Your task to perform on an android device: Check the weather Image 0: 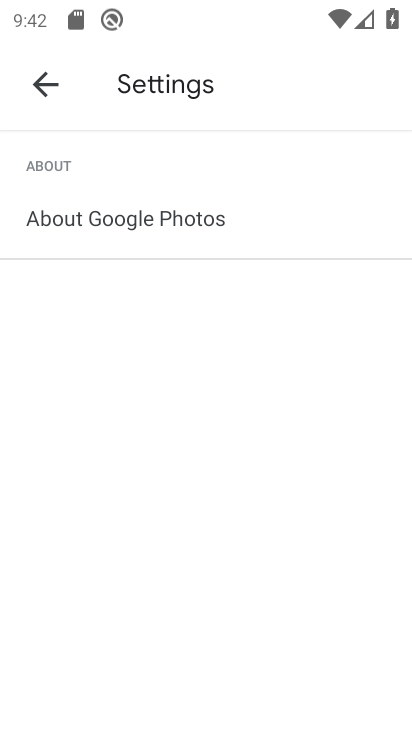
Step 0: press back button
Your task to perform on an android device: Check the weather Image 1: 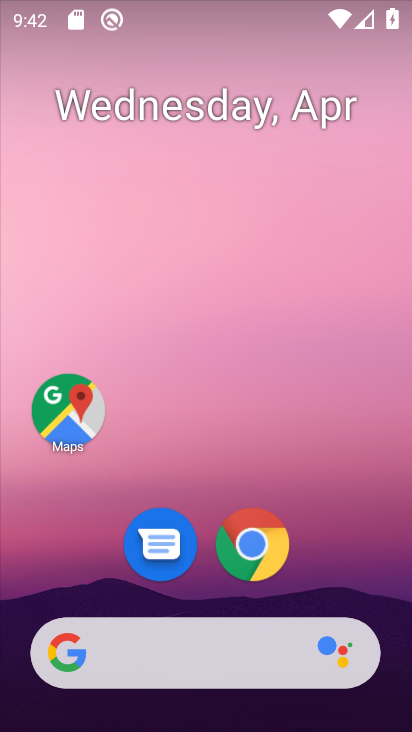
Step 1: drag from (374, 554) to (359, 181)
Your task to perform on an android device: Check the weather Image 2: 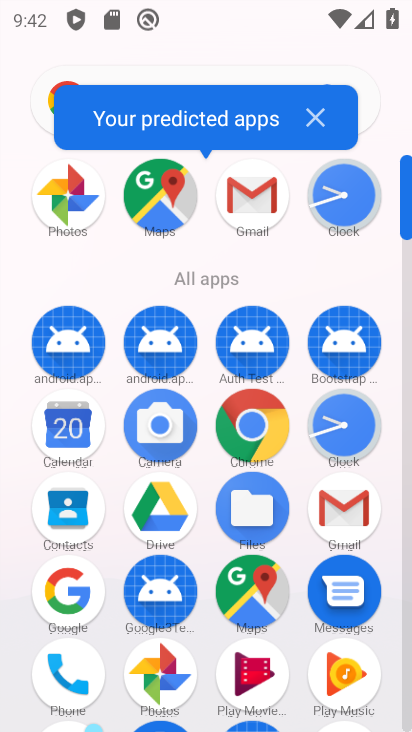
Step 2: click (256, 420)
Your task to perform on an android device: Check the weather Image 3: 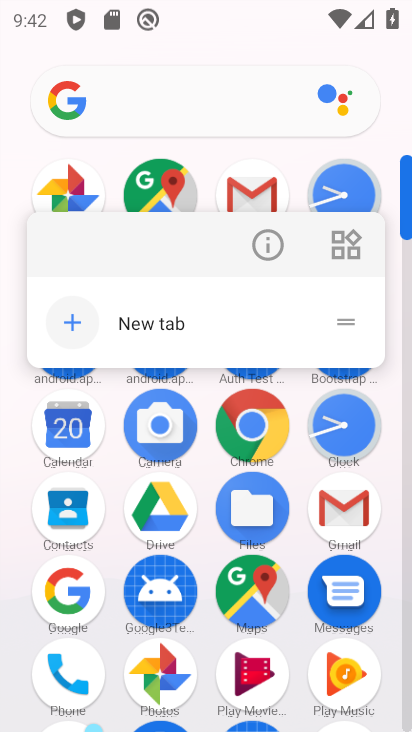
Step 3: click (260, 422)
Your task to perform on an android device: Check the weather Image 4: 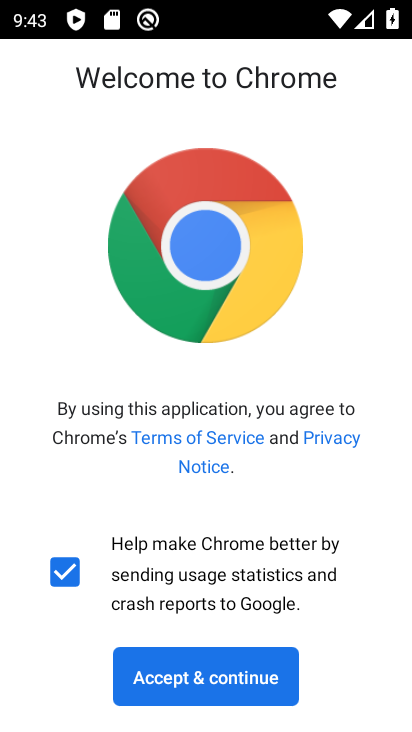
Step 4: click (221, 671)
Your task to perform on an android device: Check the weather Image 5: 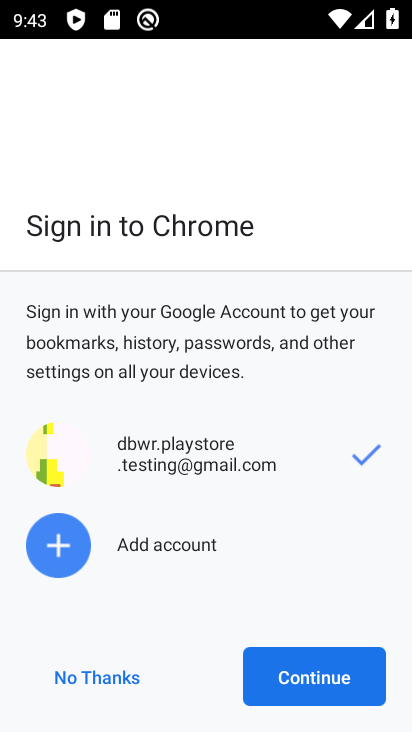
Step 5: click (293, 663)
Your task to perform on an android device: Check the weather Image 6: 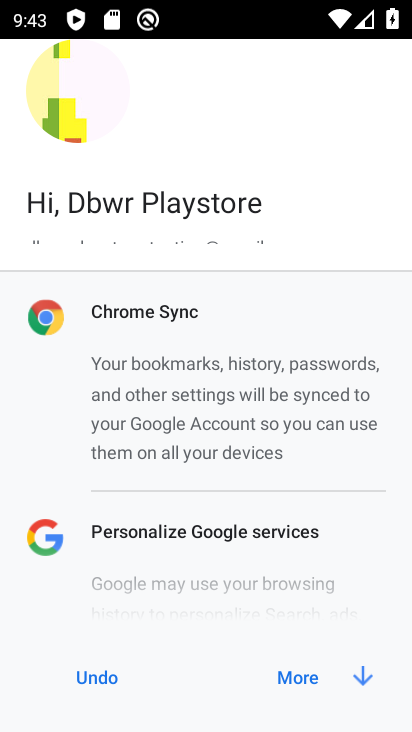
Step 6: click (293, 663)
Your task to perform on an android device: Check the weather Image 7: 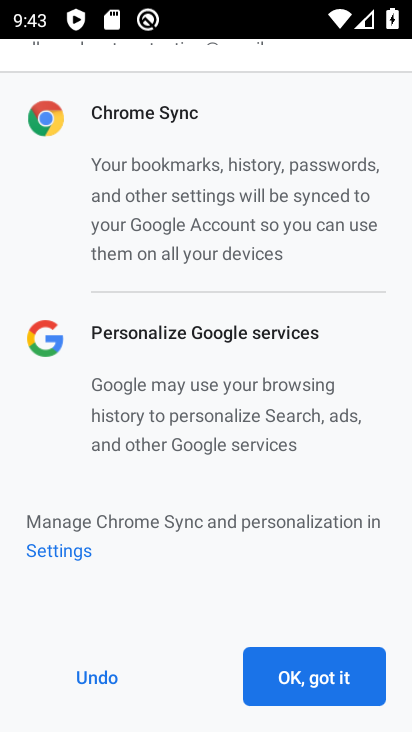
Step 7: click (293, 663)
Your task to perform on an android device: Check the weather Image 8: 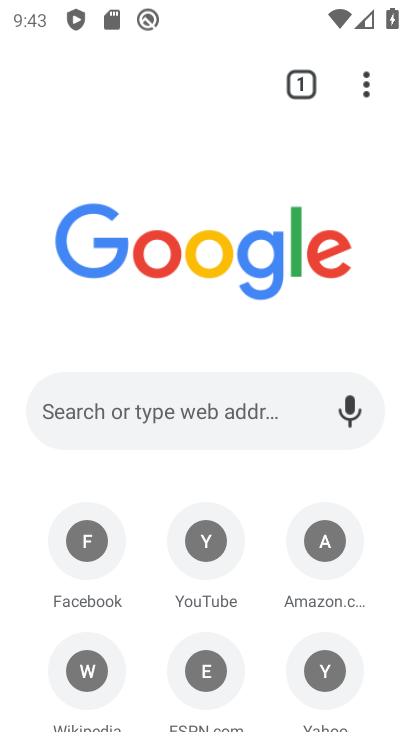
Step 8: click (202, 404)
Your task to perform on an android device: Check the weather Image 9: 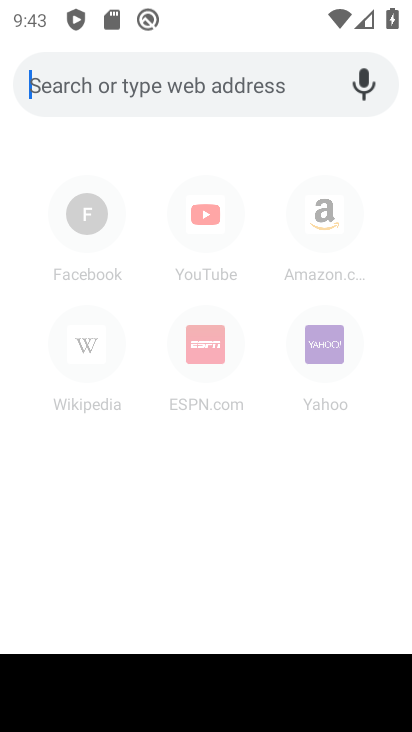
Step 9: type "weather"
Your task to perform on an android device: Check the weather Image 10: 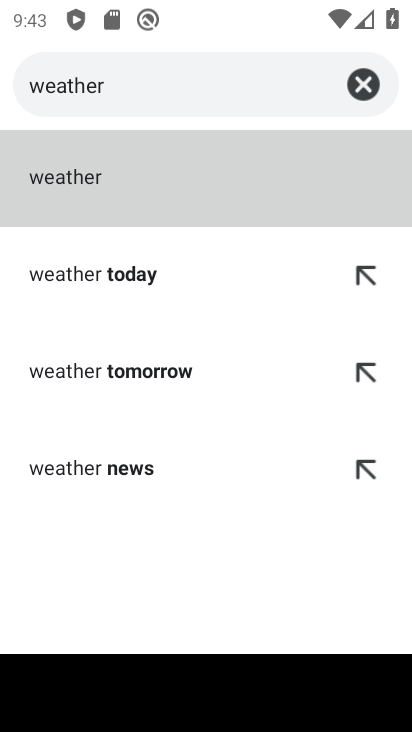
Step 10: click (69, 167)
Your task to perform on an android device: Check the weather Image 11: 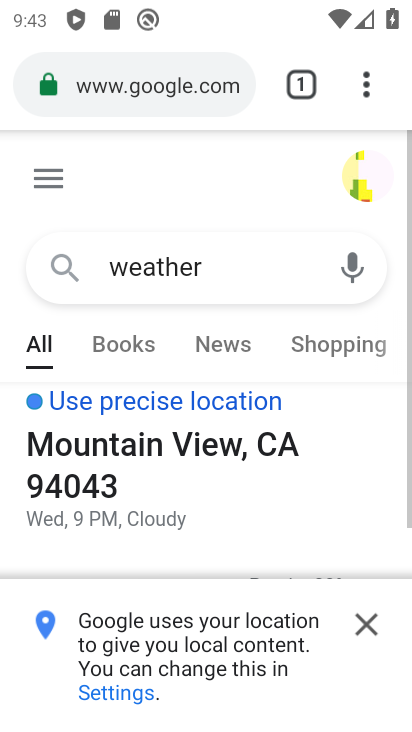
Step 11: click (368, 620)
Your task to perform on an android device: Check the weather Image 12: 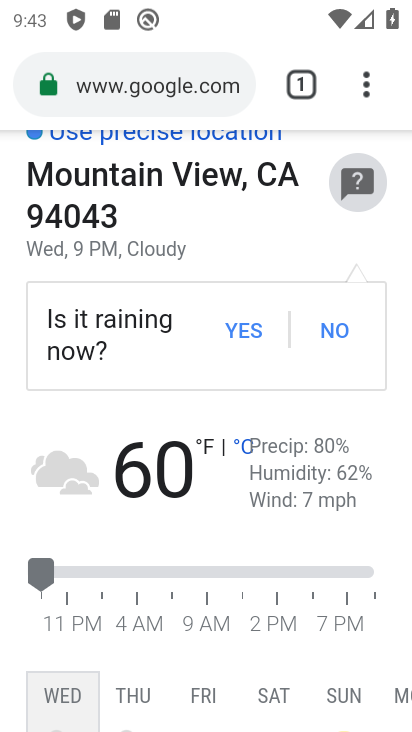
Step 12: task complete